Your task to perform on an android device: Open Wikipedia Image 0: 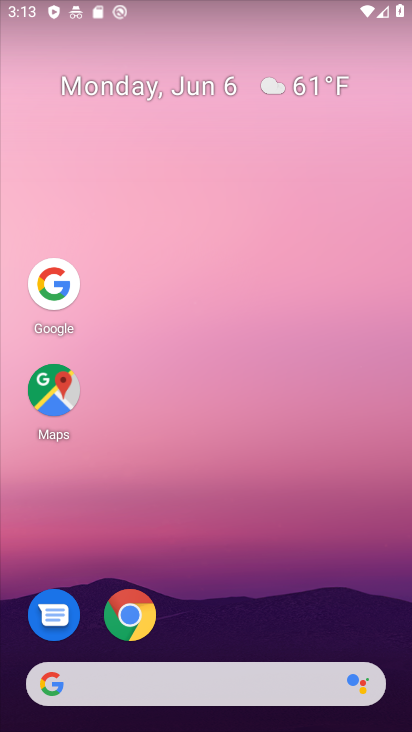
Step 0: click (112, 625)
Your task to perform on an android device: Open Wikipedia Image 1: 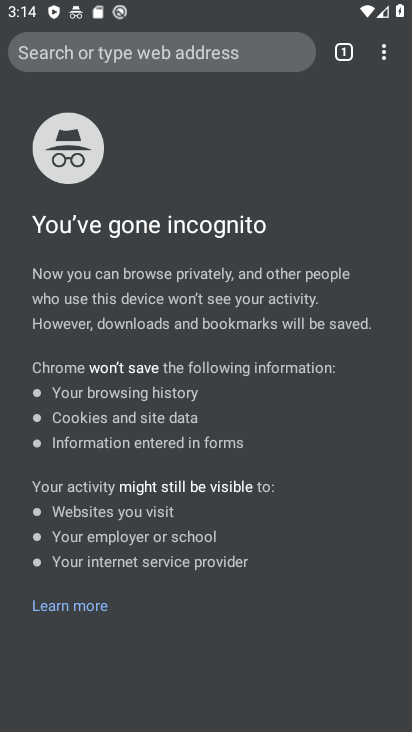
Step 1: click (349, 58)
Your task to perform on an android device: Open Wikipedia Image 2: 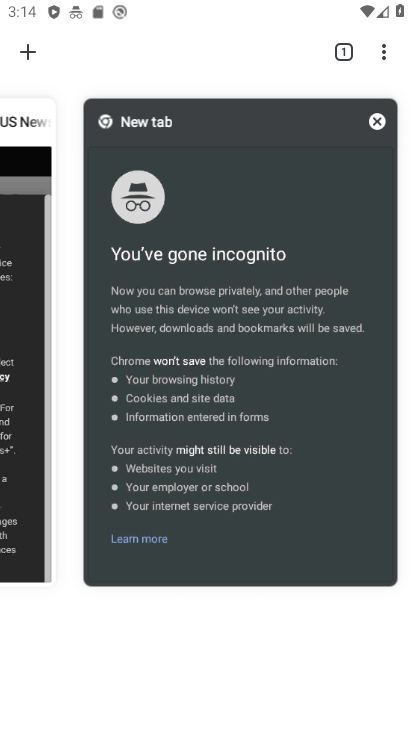
Step 2: click (34, 52)
Your task to perform on an android device: Open Wikipedia Image 3: 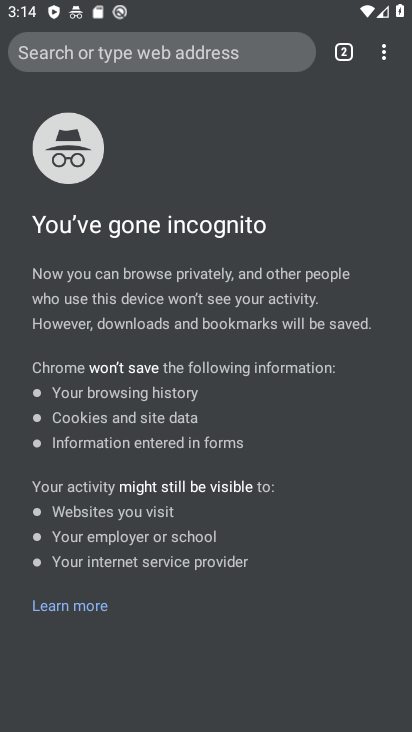
Step 3: click (331, 54)
Your task to perform on an android device: Open Wikipedia Image 4: 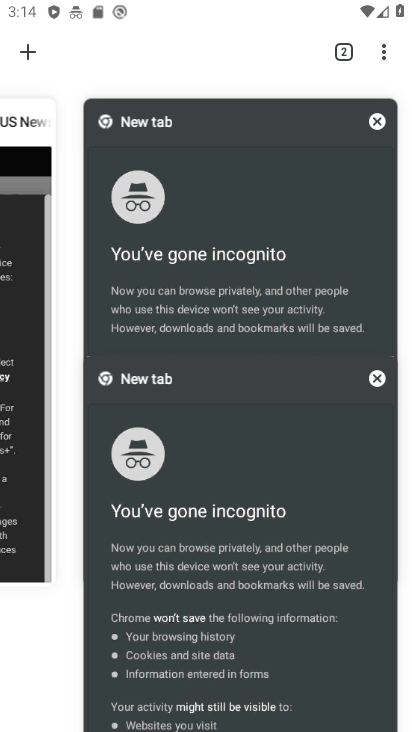
Step 4: click (36, 52)
Your task to perform on an android device: Open Wikipedia Image 5: 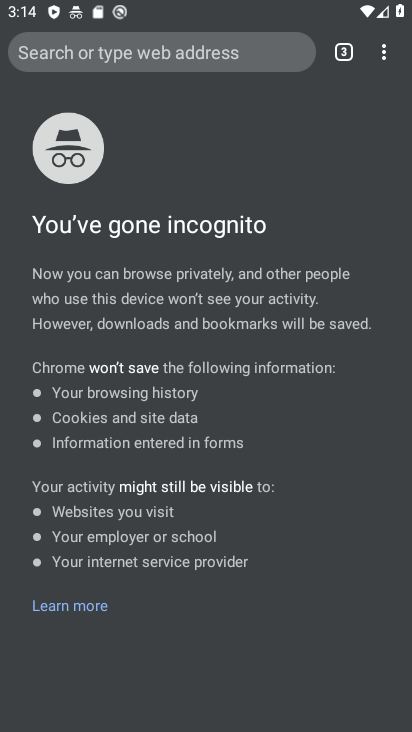
Step 5: click (347, 51)
Your task to perform on an android device: Open Wikipedia Image 6: 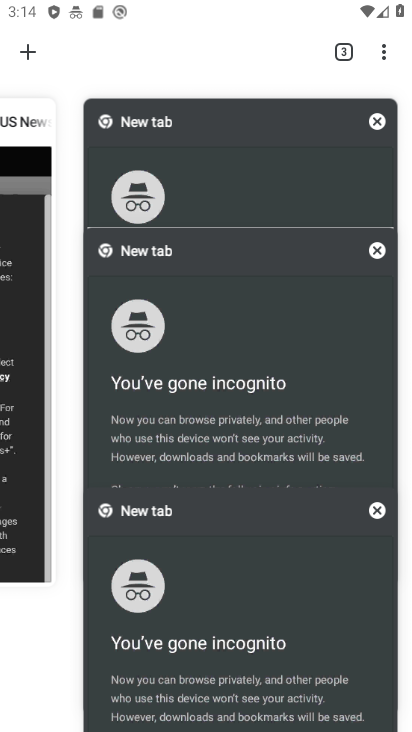
Step 6: click (39, 275)
Your task to perform on an android device: Open Wikipedia Image 7: 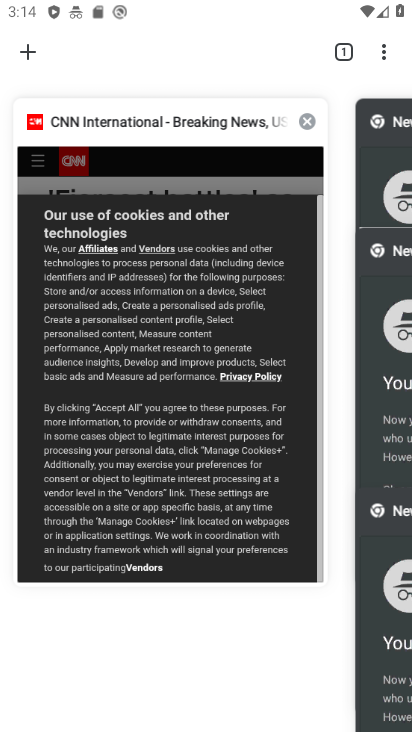
Step 7: click (207, 159)
Your task to perform on an android device: Open Wikipedia Image 8: 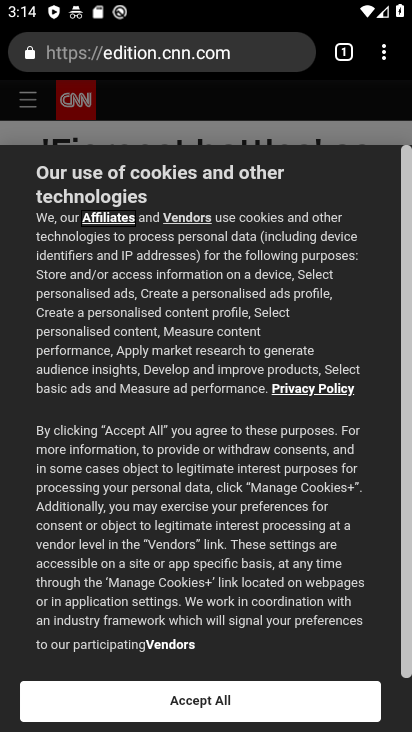
Step 8: click (343, 61)
Your task to perform on an android device: Open Wikipedia Image 9: 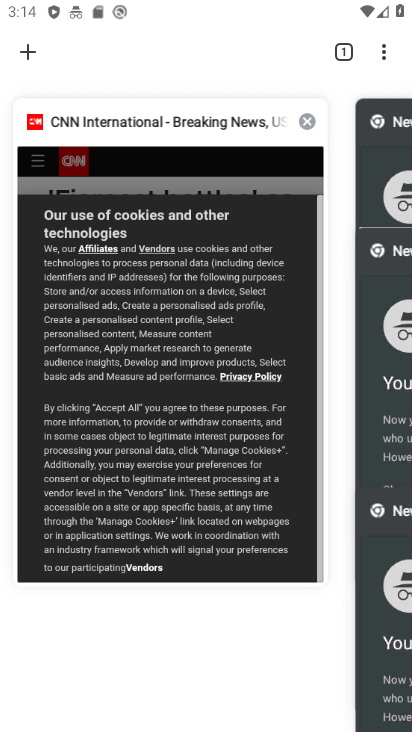
Step 9: click (34, 38)
Your task to perform on an android device: Open Wikipedia Image 10: 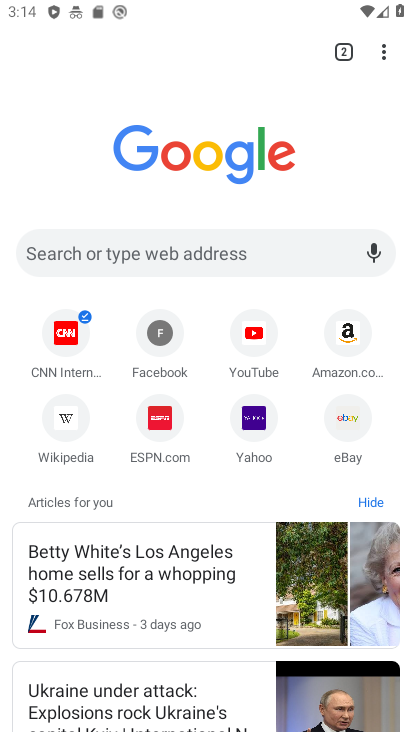
Step 10: click (75, 434)
Your task to perform on an android device: Open Wikipedia Image 11: 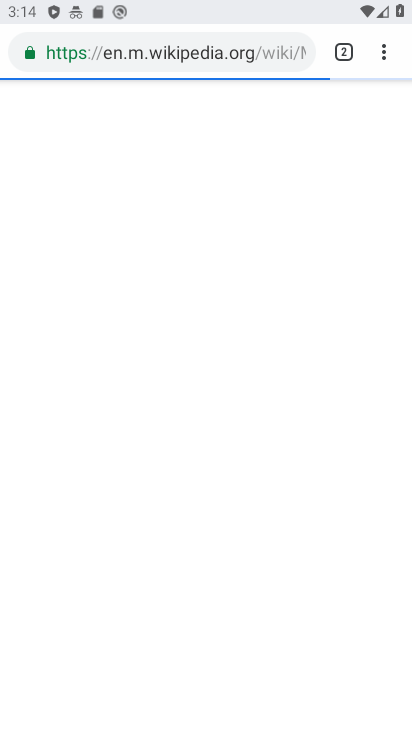
Step 11: task complete